Your task to perform on an android device: Open settings on Google Maps Image 0: 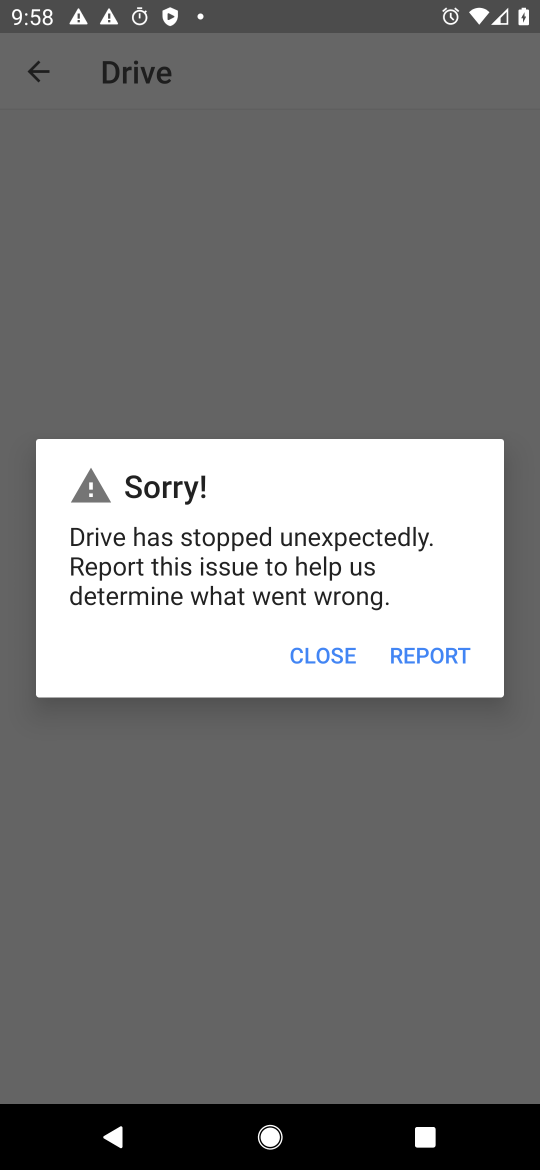
Step 0: press home button
Your task to perform on an android device: Open settings on Google Maps Image 1: 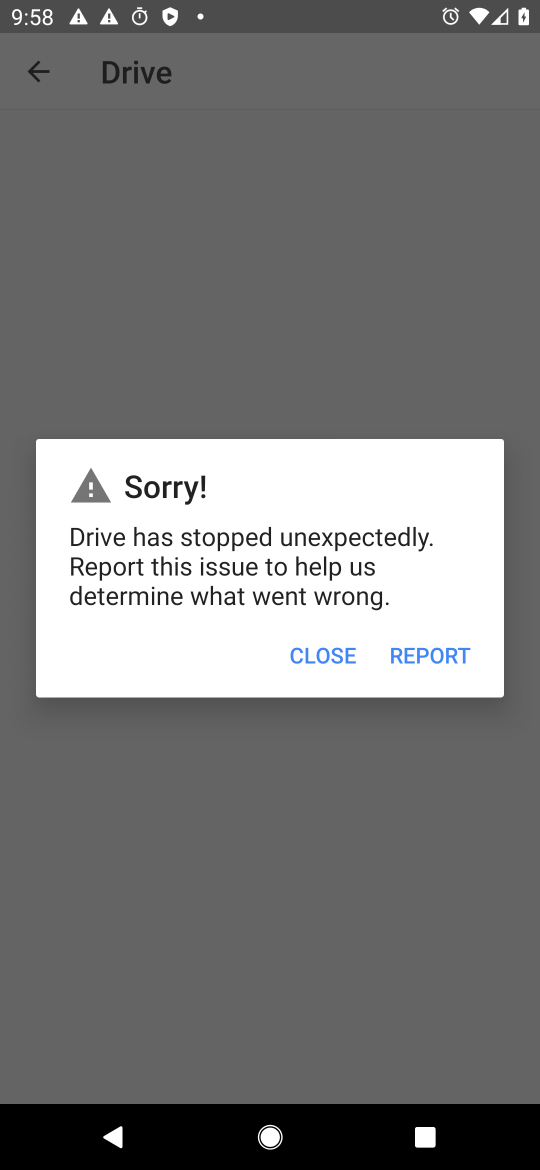
Step 1: drag from (323, 876) to (345, 472)
Your task to perform on an android device: Open settings on Google Maps Image 2: 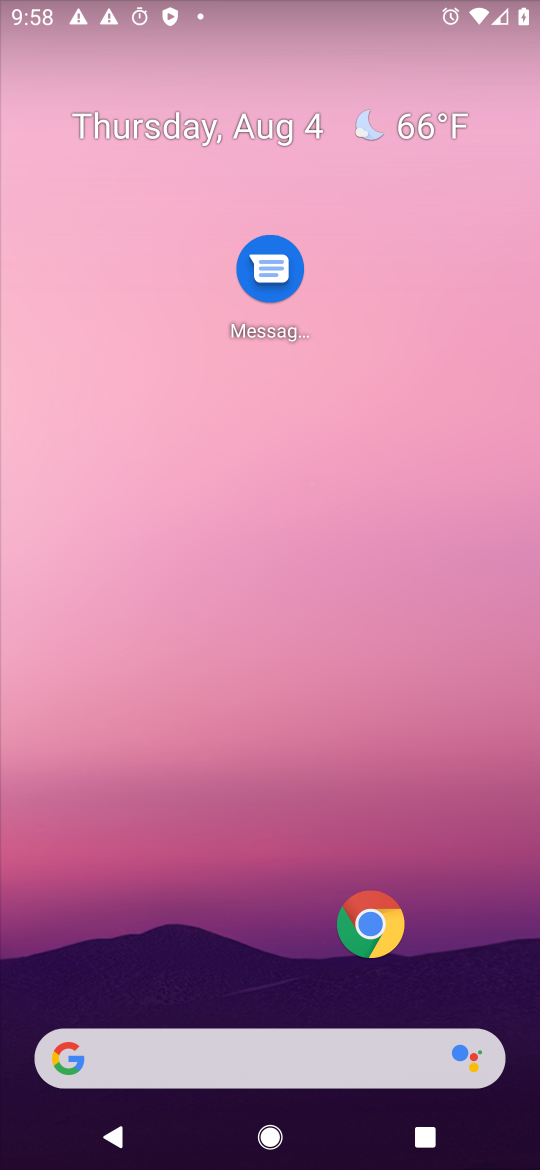
Step 2: drag from (259, 913) to (361, 216)
Your task to perform on an android device: Open settings on Google Maps Image 3: 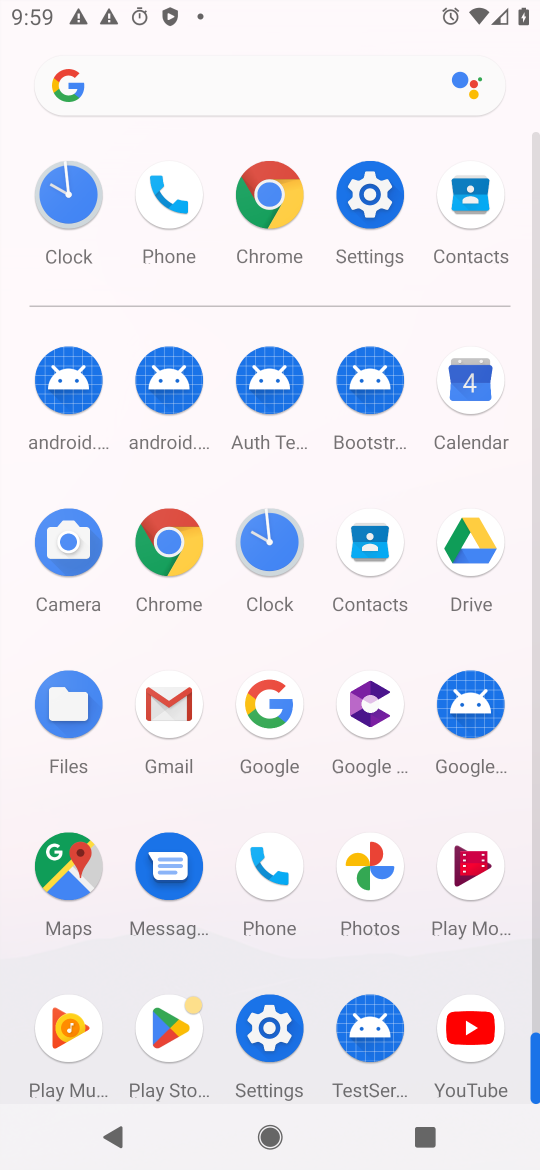
Step 3: click (67, 862)
Your task to perform on an android device: Open settings on Google Maps Image 4: 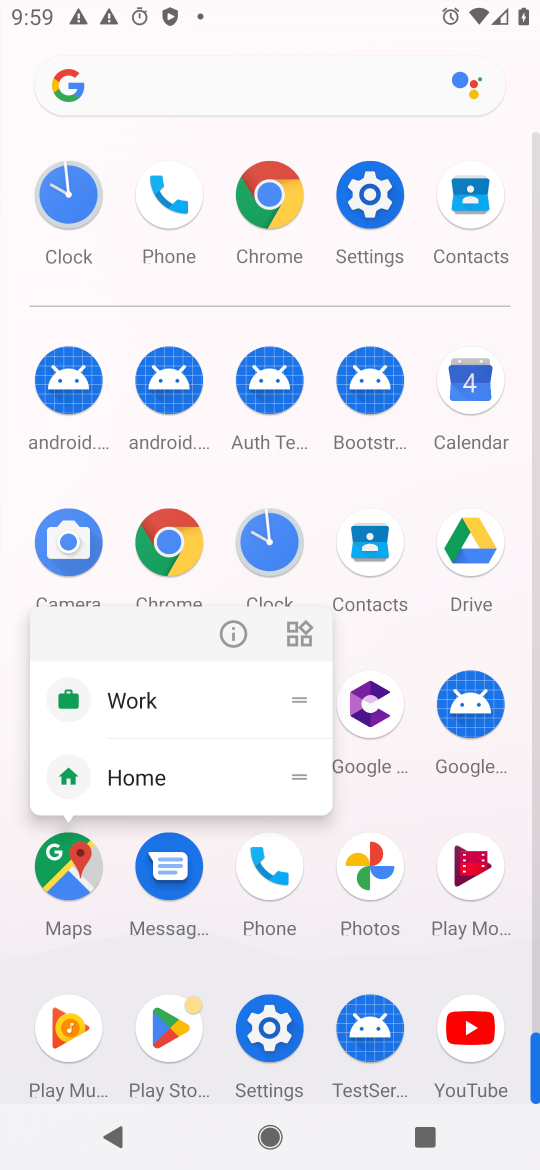
Step 4: click (230, 631)
Your task to perform on an android device: Open settings on Google Maps Image 5: 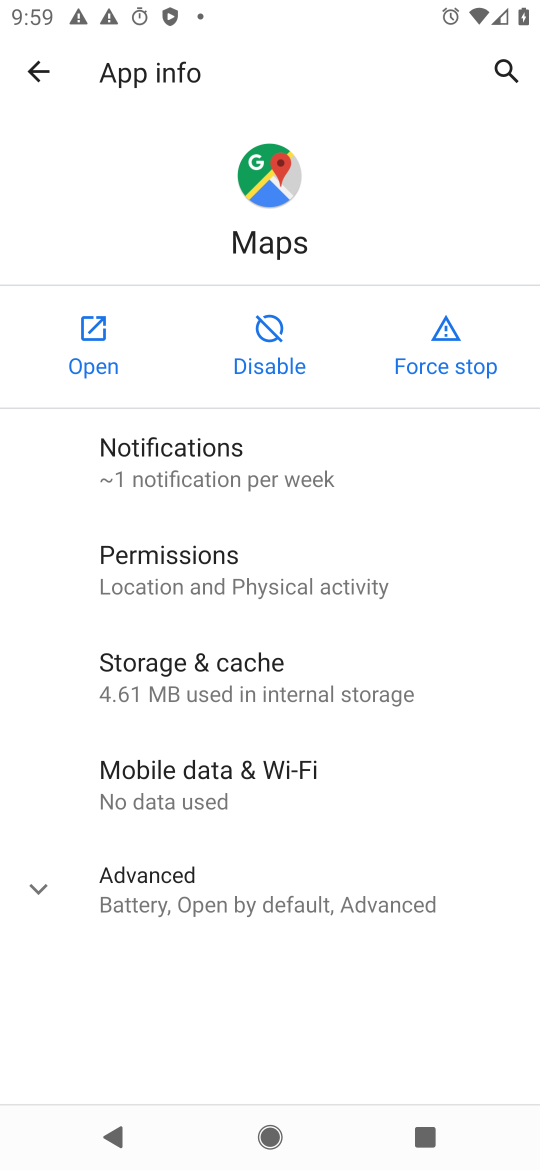
Step 5: click (104, 300)
Your task to perform on an android device: Open settings on Google Maps Image 6: 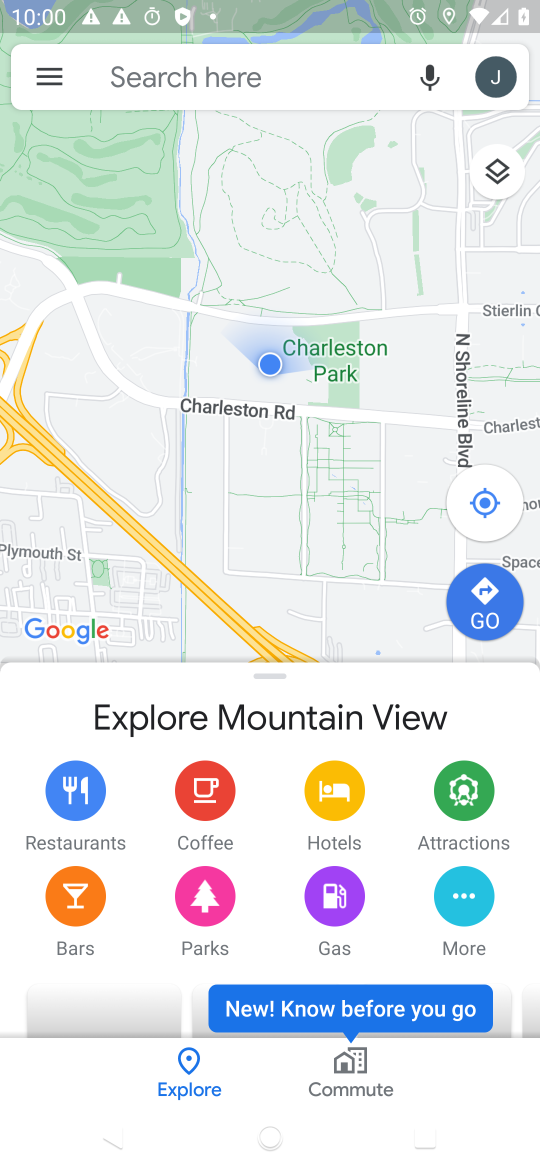
Step 6: click (28, 76)
Your task to perform on an android device: Open settings on Google Maps Image 7: 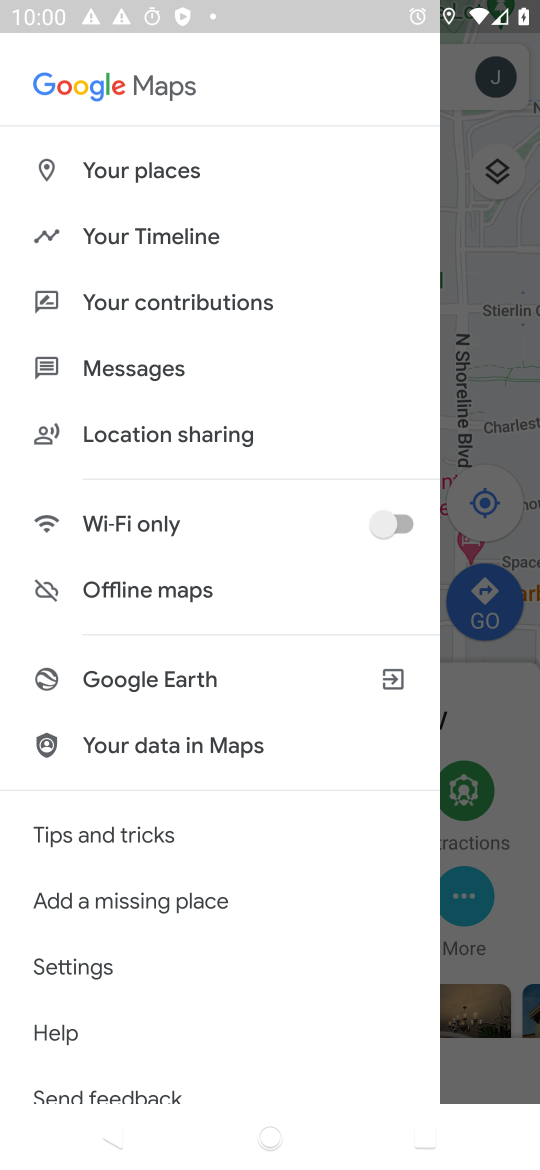
Step 7: click (124, 971)
Your task to perform on an android device: Open settings on Google Maps Image 8: 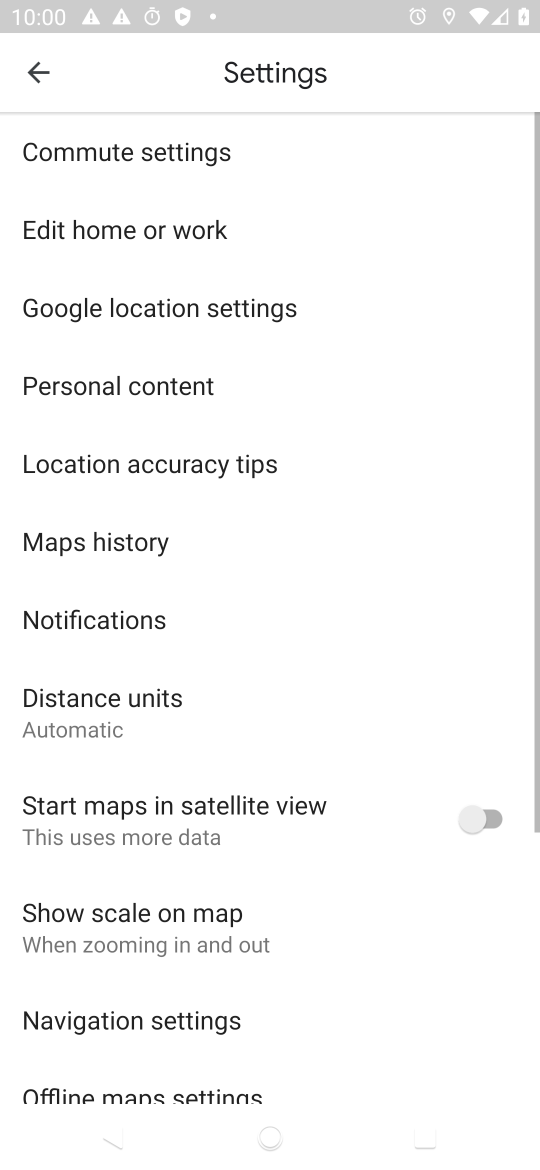
Step 8: task complete